Your task to perform on an android device: set an alarm Image 0: 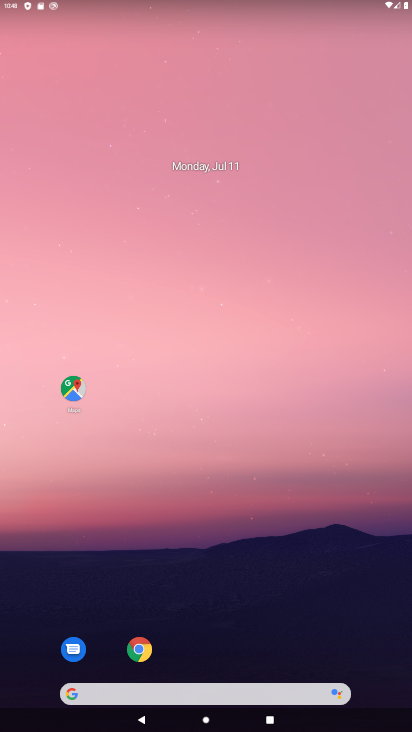
Step 0: drag from (376, 716) to (327, 127)
Your task to perform on an android device: set an alarm Image 1: 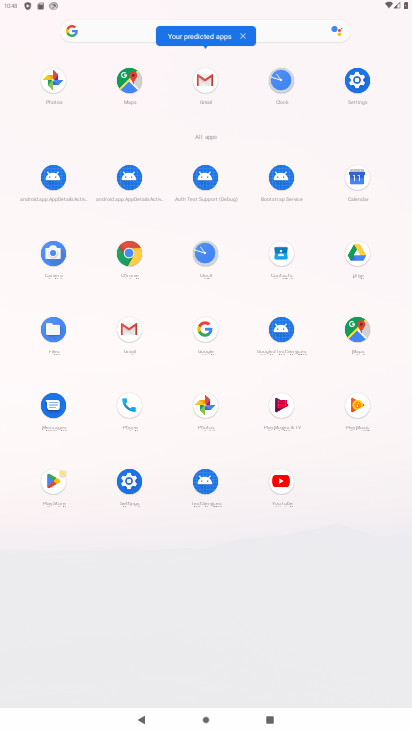
Step 1: click (210, 261)
Your task to perform on an android device: set an alarm Image 2: 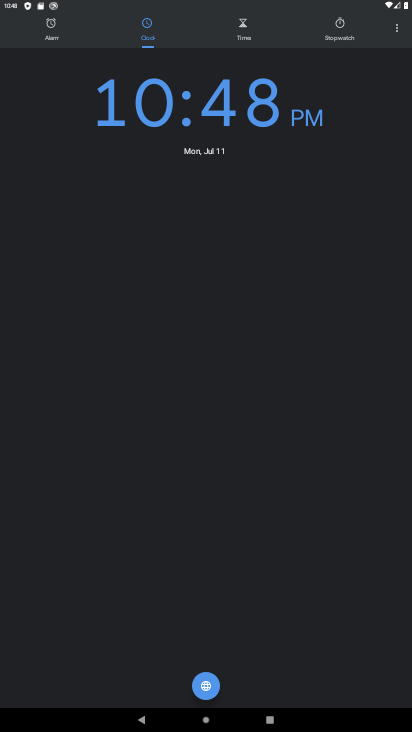
Step 2: click (50, 25)
Your task to perform on an android device: set an alarm Image 3: 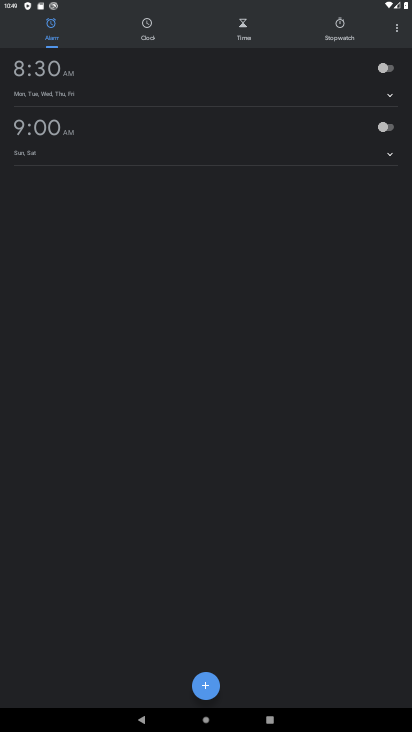
Step 3: click (392, 129)
Your task to perform on an android device: set an alarm Image 4: 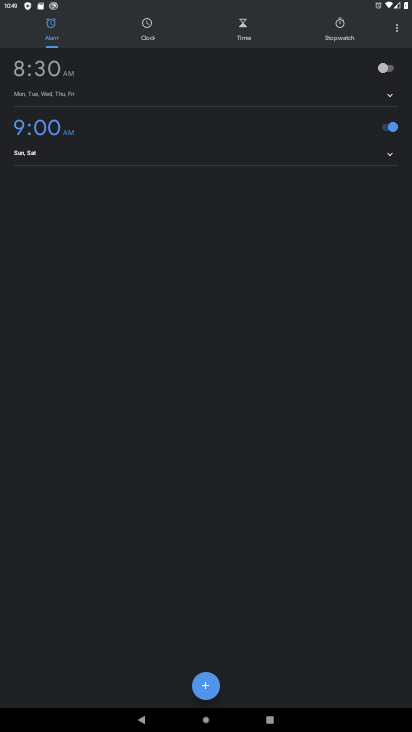
Step 4: task complete